Your task to perform on an android device: turn on showing notifications on the lock screen Image 0: 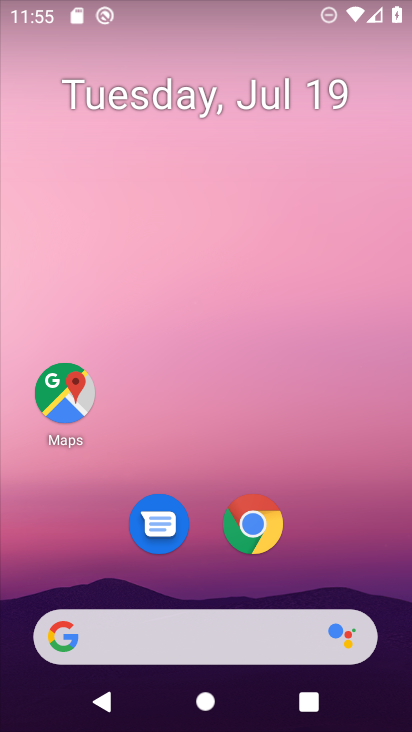
Step 0: press home button
Your task to perform on an android device: turn on showing notifications on the lock screen Image 1: 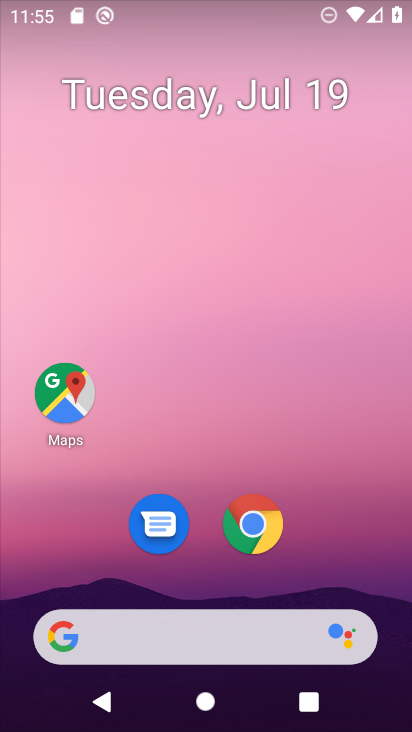
Step 1: drag from (175, 648) to (306, 130)
Your task to perform on an android device: turn on showing notifications on the lock screen Image 2: 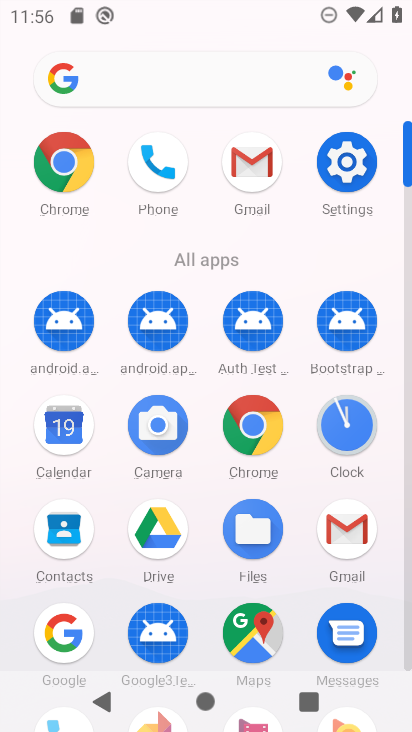
Step 2: click (345, 169)
Your task to perform on an android device: turn on showing notifications on the lock screen Image 3: 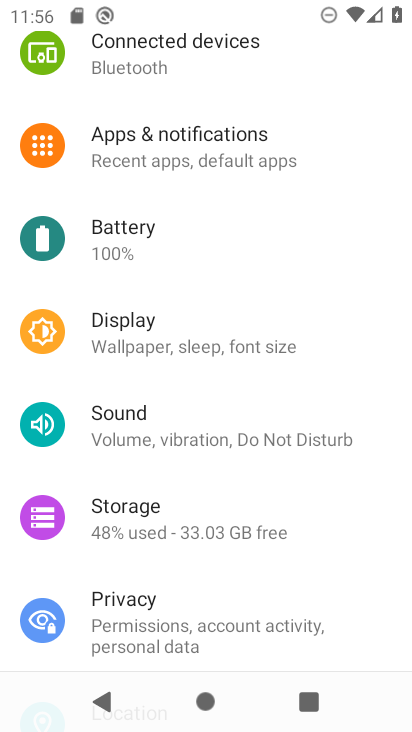
Step 3: click (183, 149)
Your task to perform on an android device: turn on showing notifications on the lock screen Image 4: 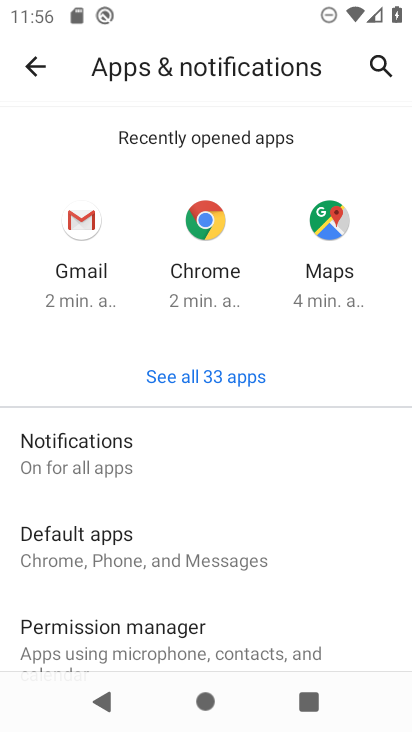
Step 4: click (109, 460)
Your task to perform on an android device: turn on showing notifications on the lock screen Image 5: 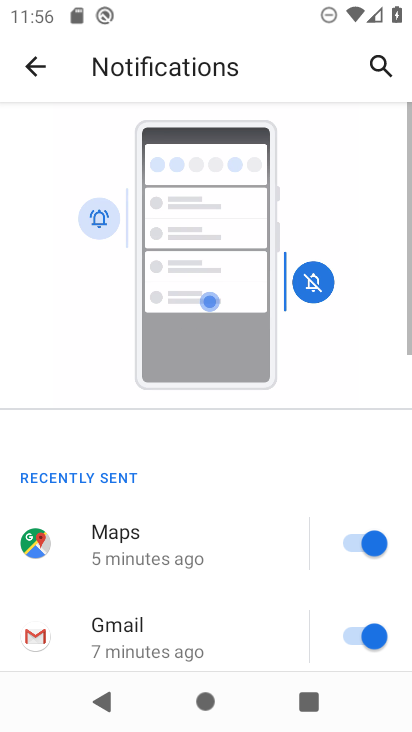
Step 5: drag from (196, 609) to (379, 90)
Your task to perform on an android device: turn on showing notifications on the lock screen Image 6: 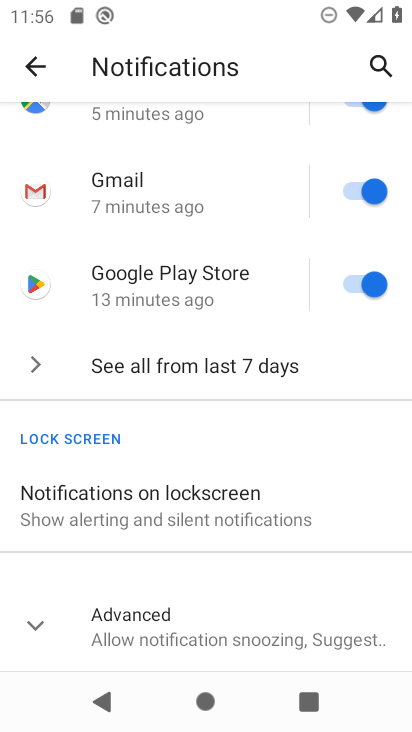
Step 6: drag from (203, 377) to (211, 344)
Your task to perform on an android device: turn on showing notifications on the lock screen Image 7: 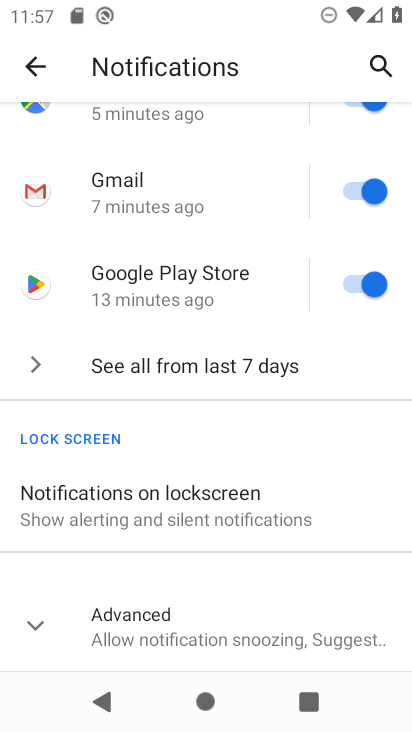
Step 7: click (193, 505)
Your task to perform on an android device: turn on showing notifications on the lock screen Image 8: 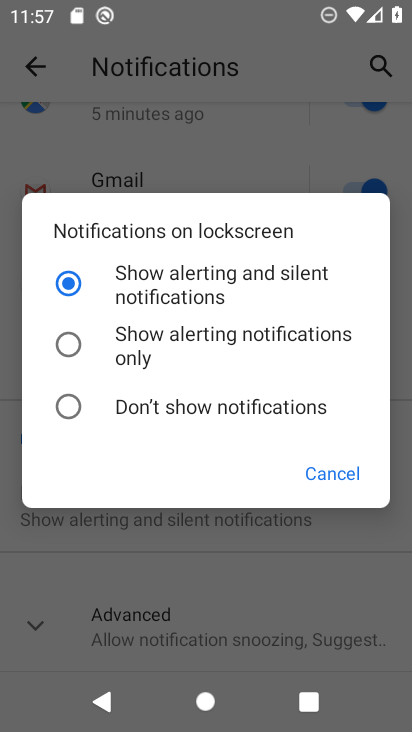
Step 8: task complete